Your task to perform on an android device: see tabs open on other devices in the chrome app Image 0: 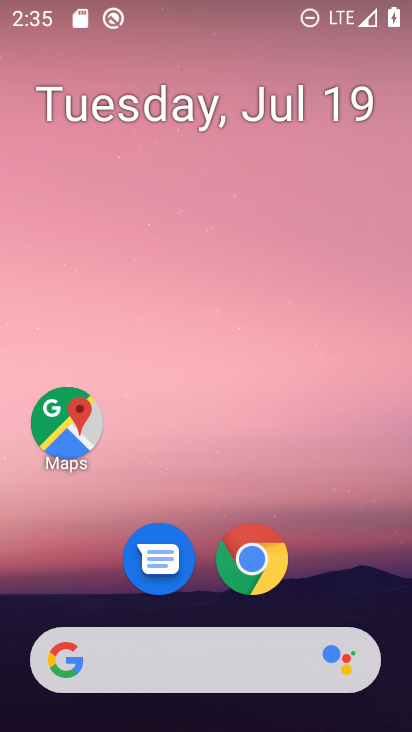
Step 0: drag from (236, 640) to (250, 225)
Your task to perform on an android device: see tabs open on other devices in the chrome app Image 1: 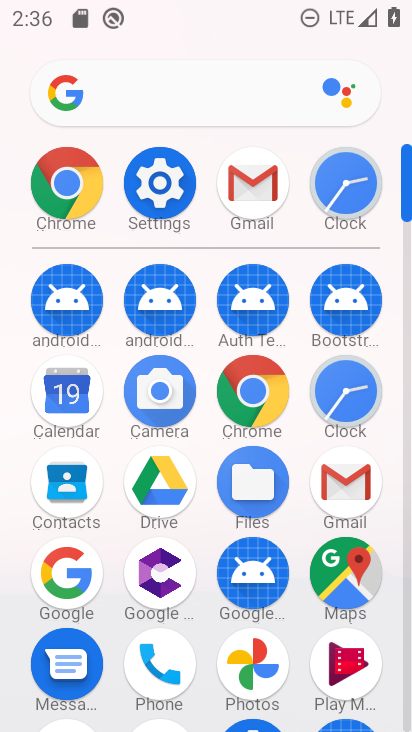
Step 1: click (244, 382)
Your task to perform on an android device: see tabs open on other devices in the chrome app Image 2: 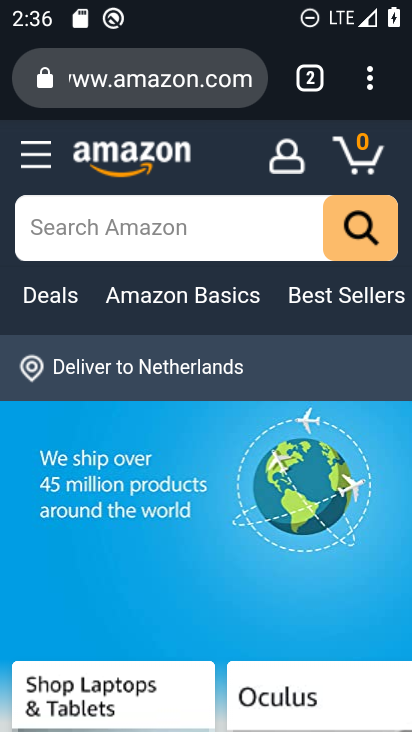
Step 2: task complete